Your task to perform on an android device: Go to Reddit.com Image 0: 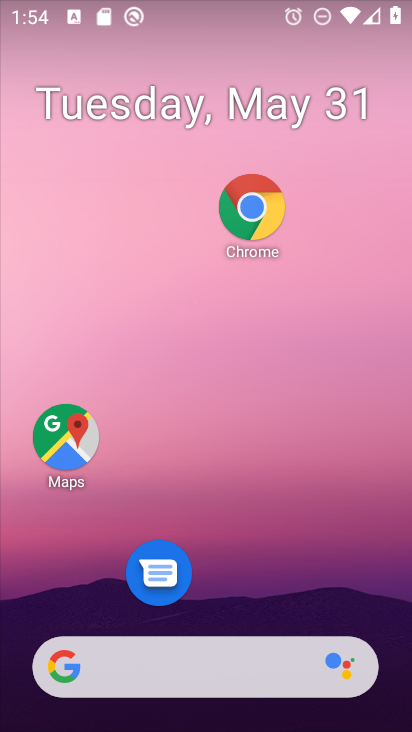
Step 0: drag from (191, 617) to (223, 132)
Your task to perform on an android device: Go to Reddit.com Image 1: 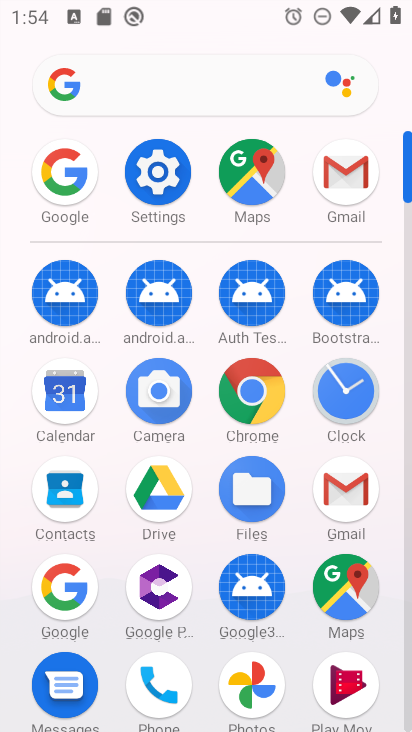
Step 1: click (261, 403)
Your task to perform on an android device: Go to Reddit.com Image 2: 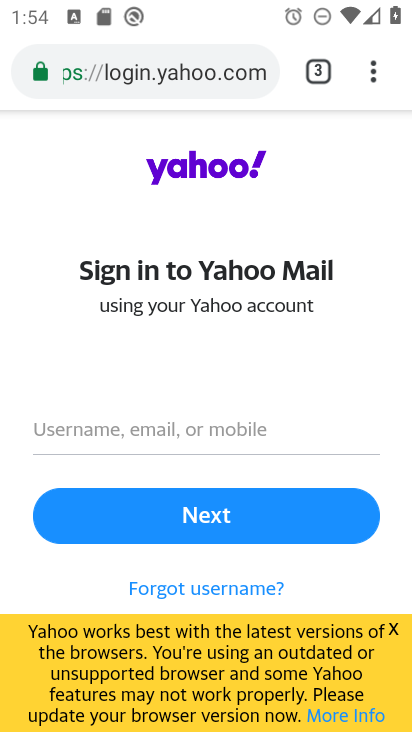
Step 2: click (257, 77)
Your task to perform on an android device: Go to Reddit.com Image 3: 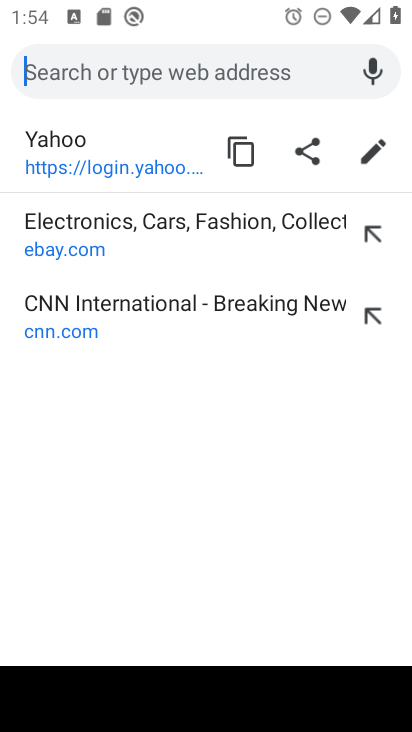
Step 3: type "raddit"
Your task to perform on an android device: Go to Reddit.com Image 4: 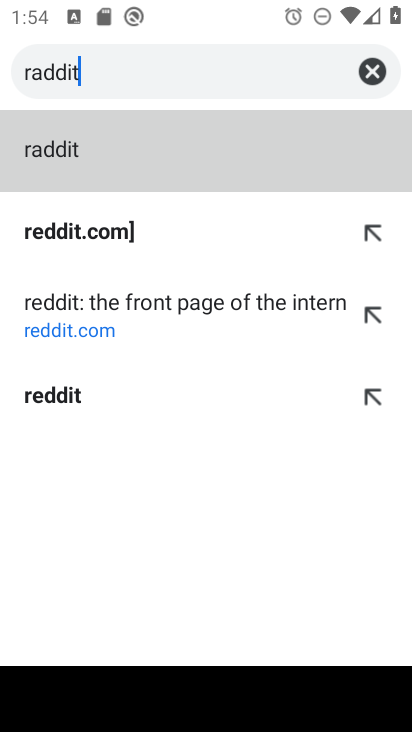
Step 4: click (158, 323)
Your task to perform on an android device: Go to Reddit.com Image 5: 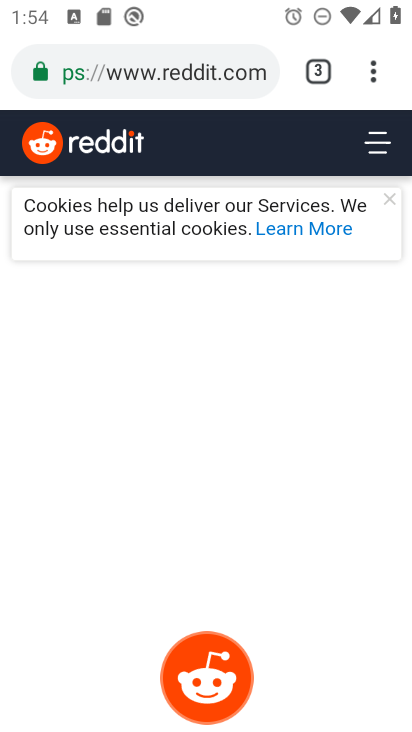
Step 5: task complete